Your task to perform on an android device: Open Wikipedia Image 0: 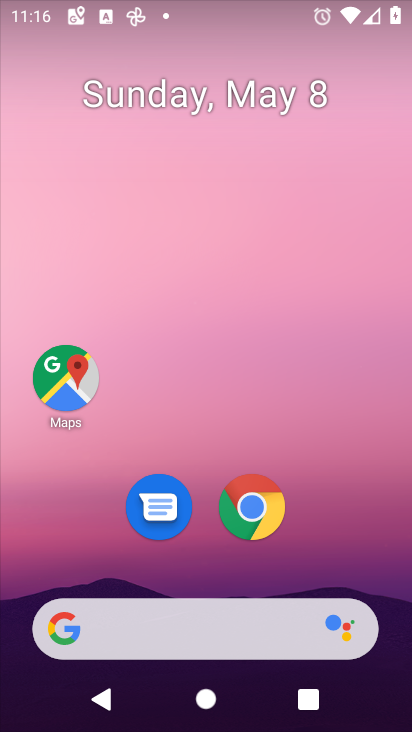
Step 0: click (244, 630)
Your task to perform on an android device: Open Wikipedia Image 1: 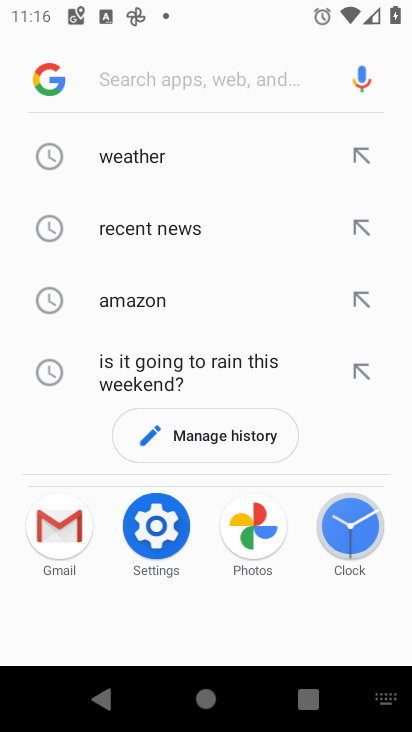
Step 1: type "wikipedia"
Your task to perform on an android device: Open Wikipedia Image 2: 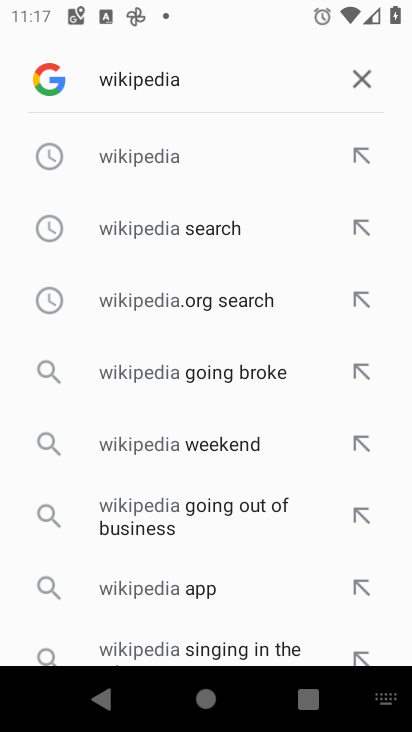
Step 2: click (179, 166)
Your task to perform on an android device: Open Wikipedia Image 3: 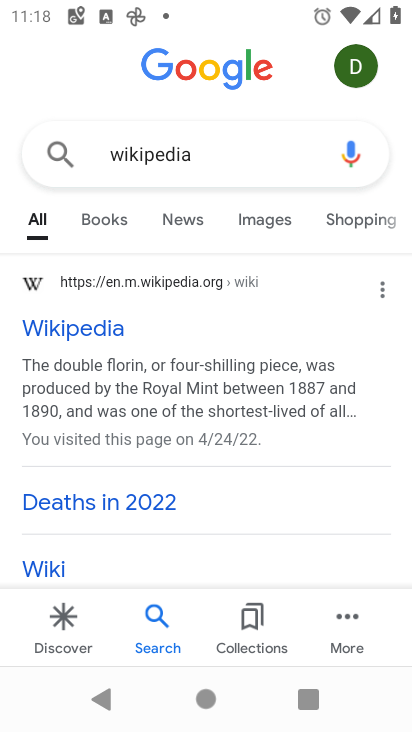
Step 3: click (97, 275)
Your task to perform on an android device: Open Wikipedia Image 4: 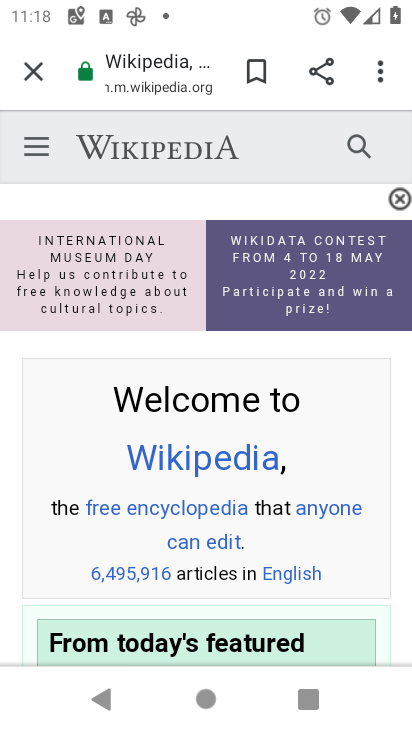
Step 4: task complete